Your task to perform on an android device: open app "Facebook Lite" (install if not already installed) Image 0: 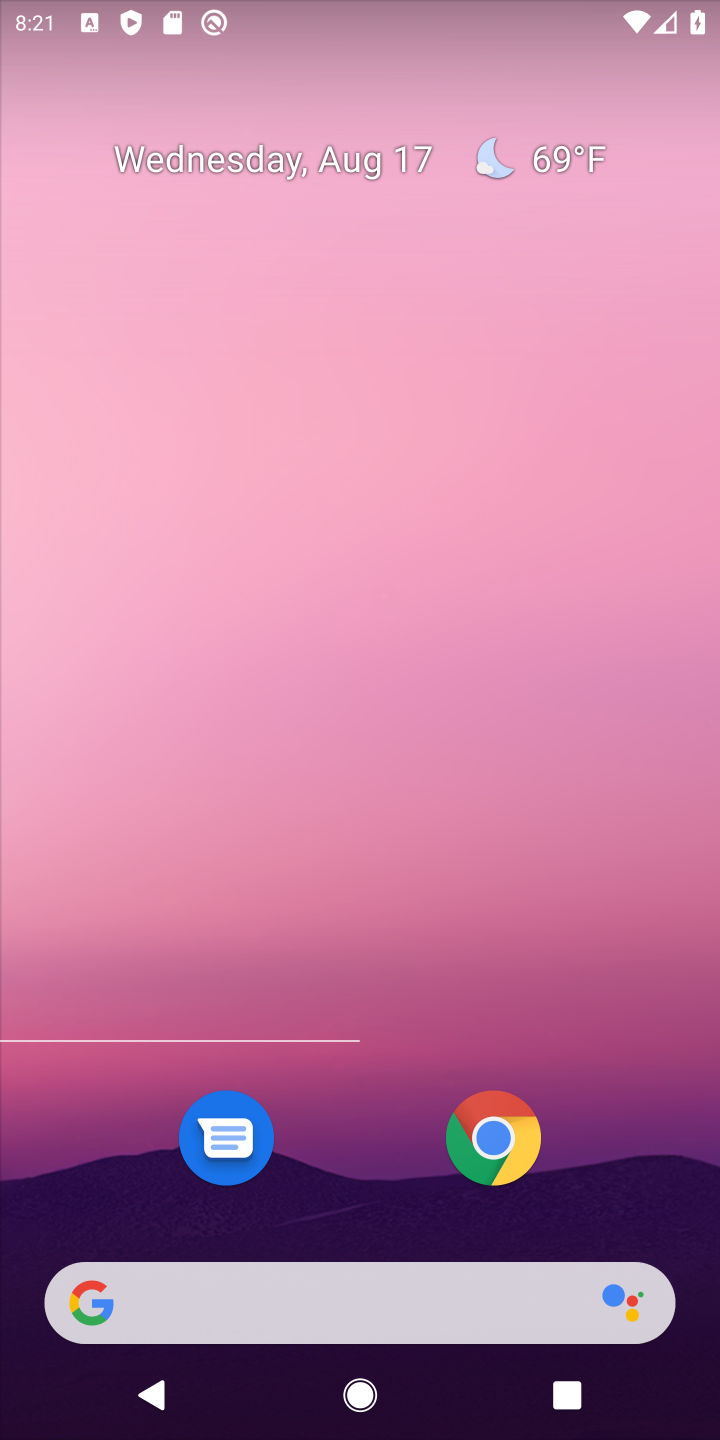
Step 0: press home button
Your task to perform on an android device: open app "Facebook Lite" (install if not already installed) Image 1: 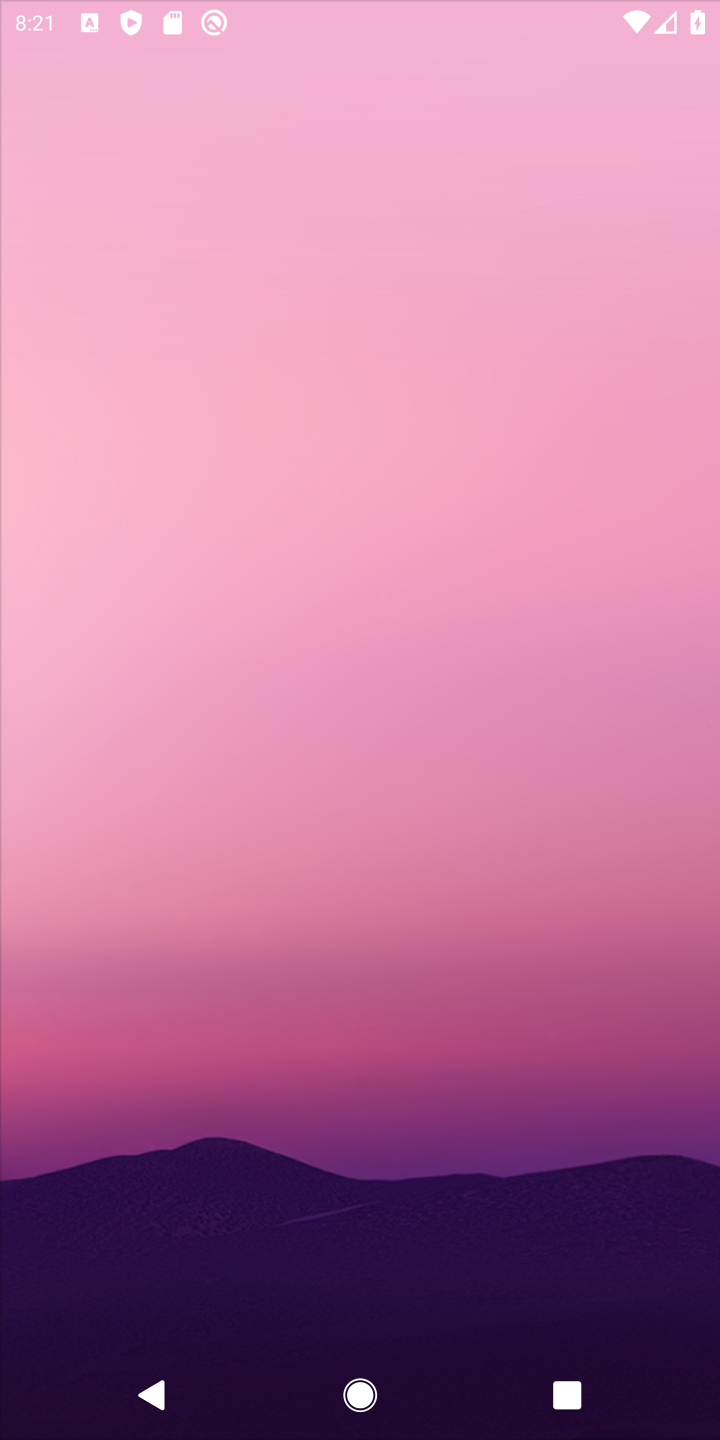
Step 1: drag from (385, 1207) to (381, 520)
Your task to perform on an android device: open app "Facebook Lite" (install if not already installed) Image 2: 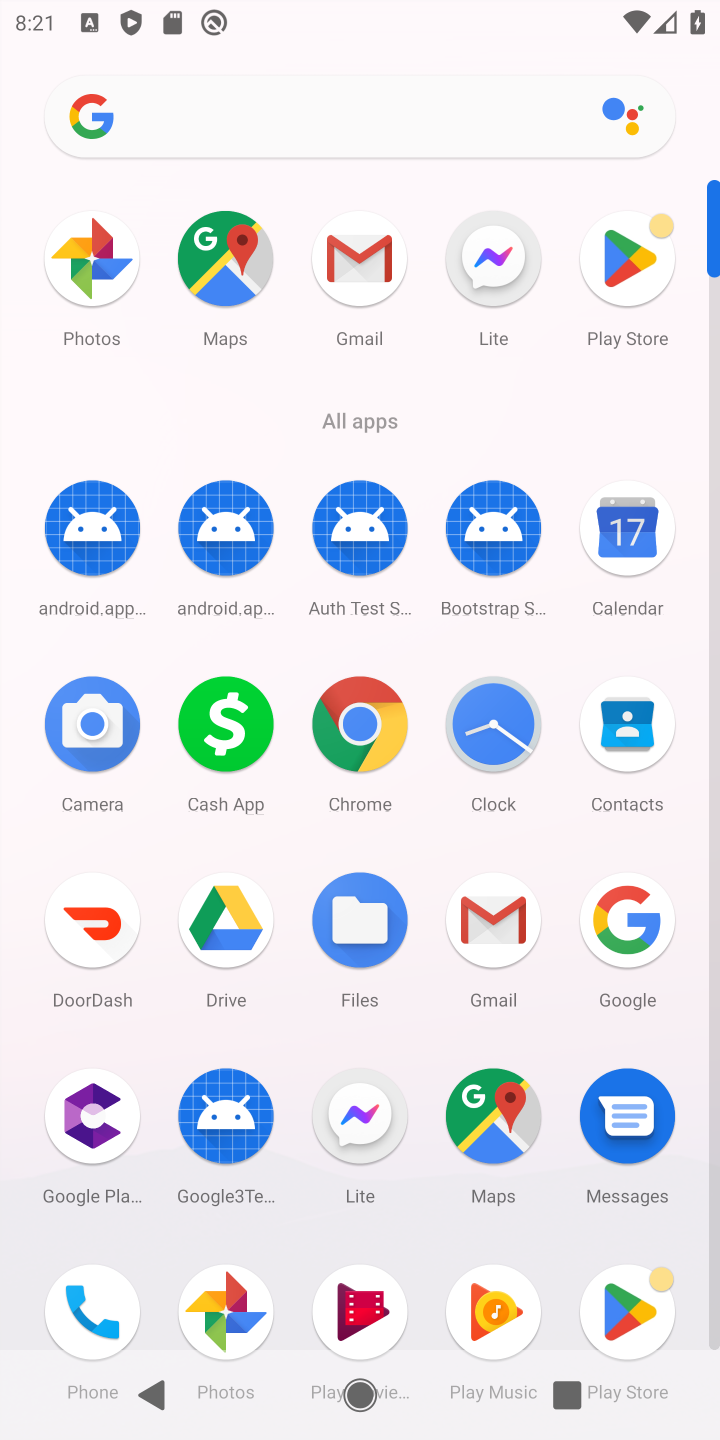
Step 2: click (620, 292)
Your task to perform on an android device: open app "Facebook Lite" (install if not already installed) Image 3: 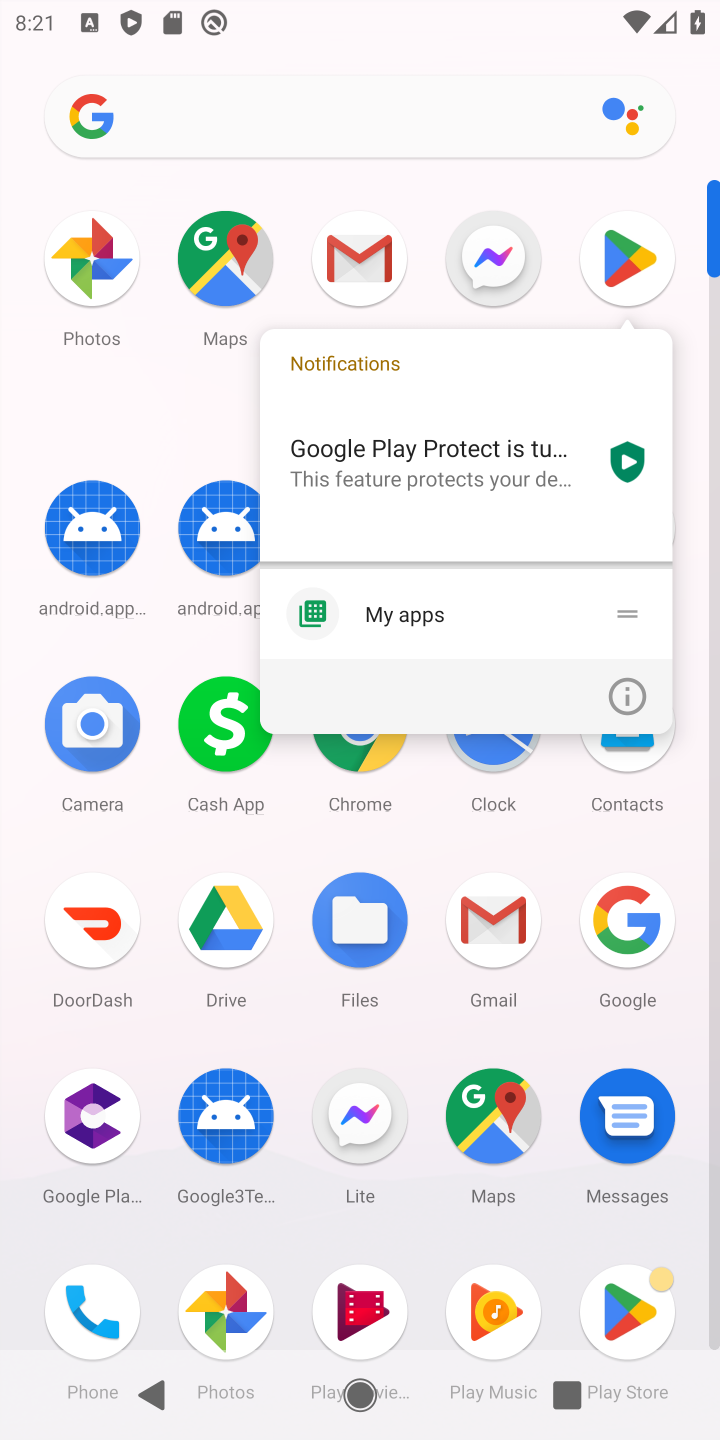
Step 3: click (603, 269)
Your task to perform on an android device: open app "Facebook Lite" (install if not already installed) Image 4: 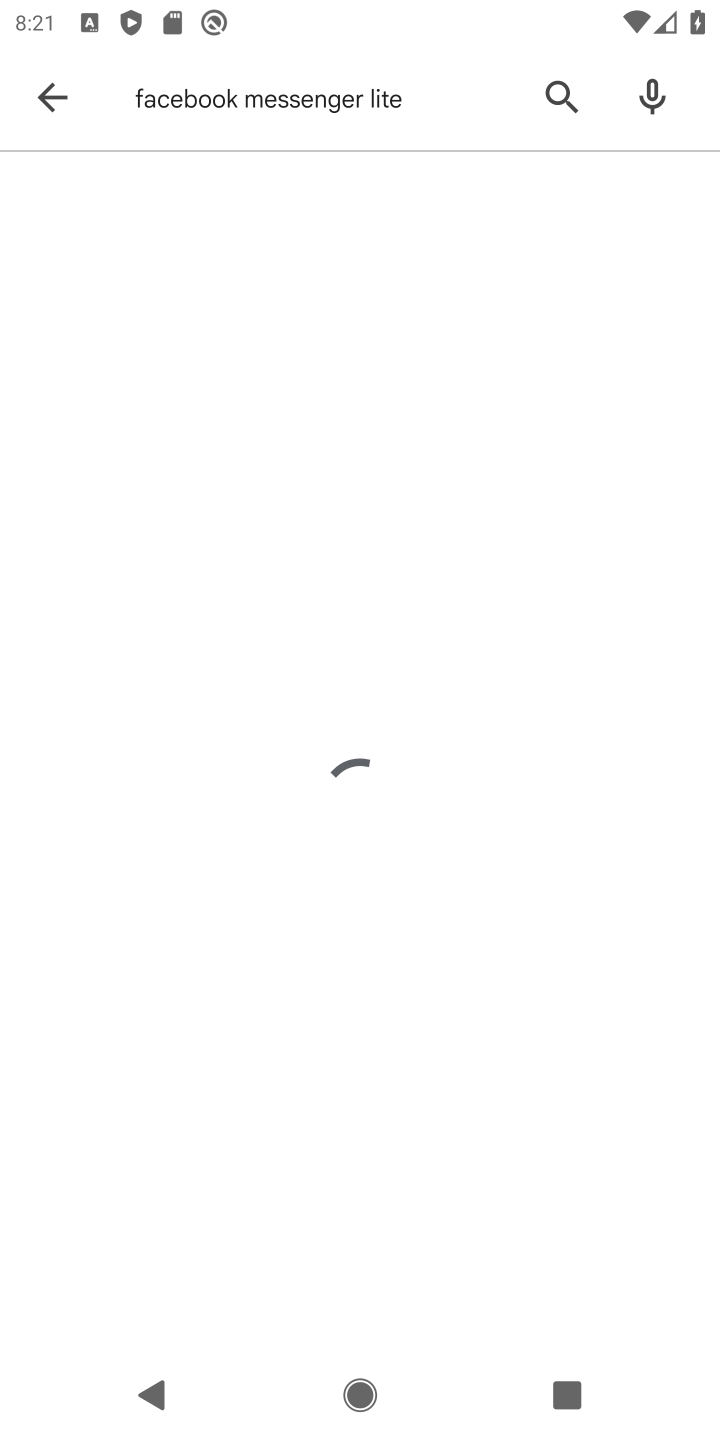
Step 4: click (51, 98)
Your task to perform on an android device: open app "Facebook Lite" (install if not already installed) Image 5: 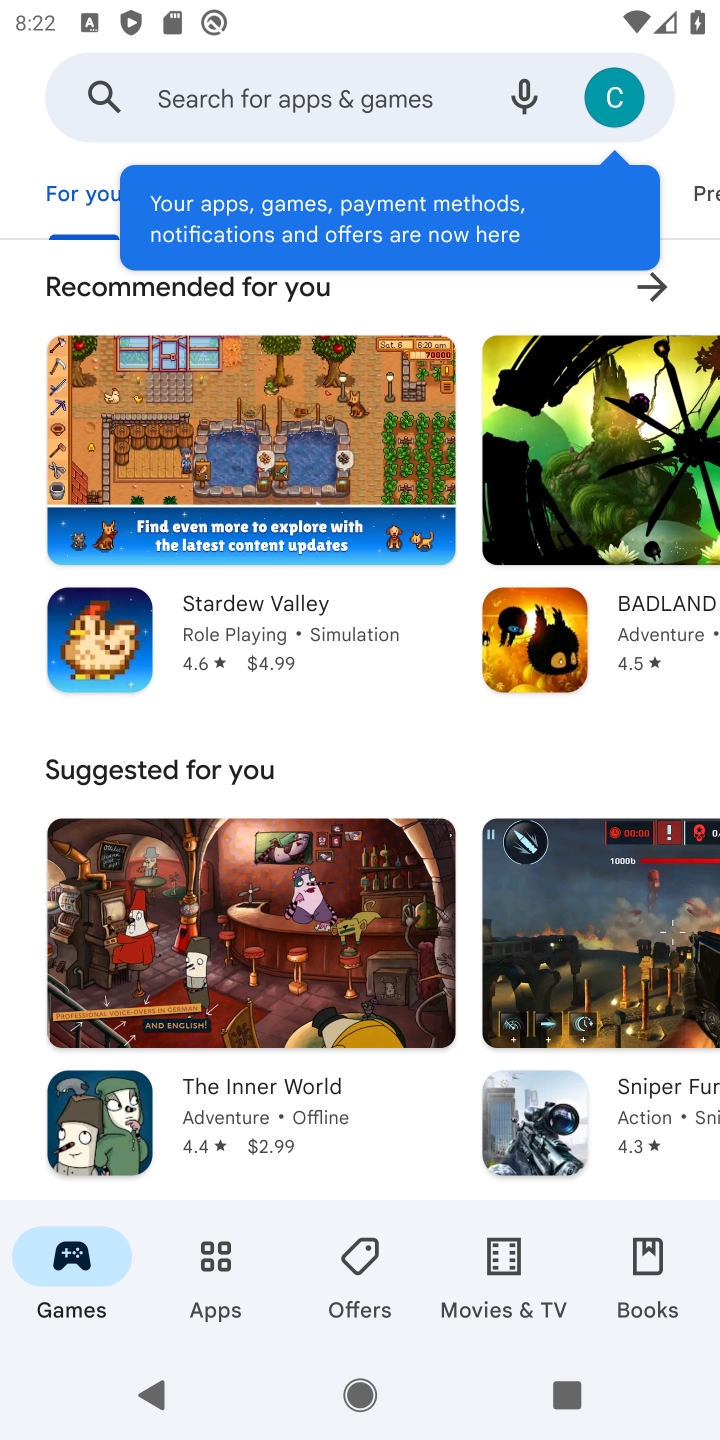
Step 5: click (270, 93)
Your task to perform on an android device: open app "Facebook Lite" (install if not already installed) Image 6: 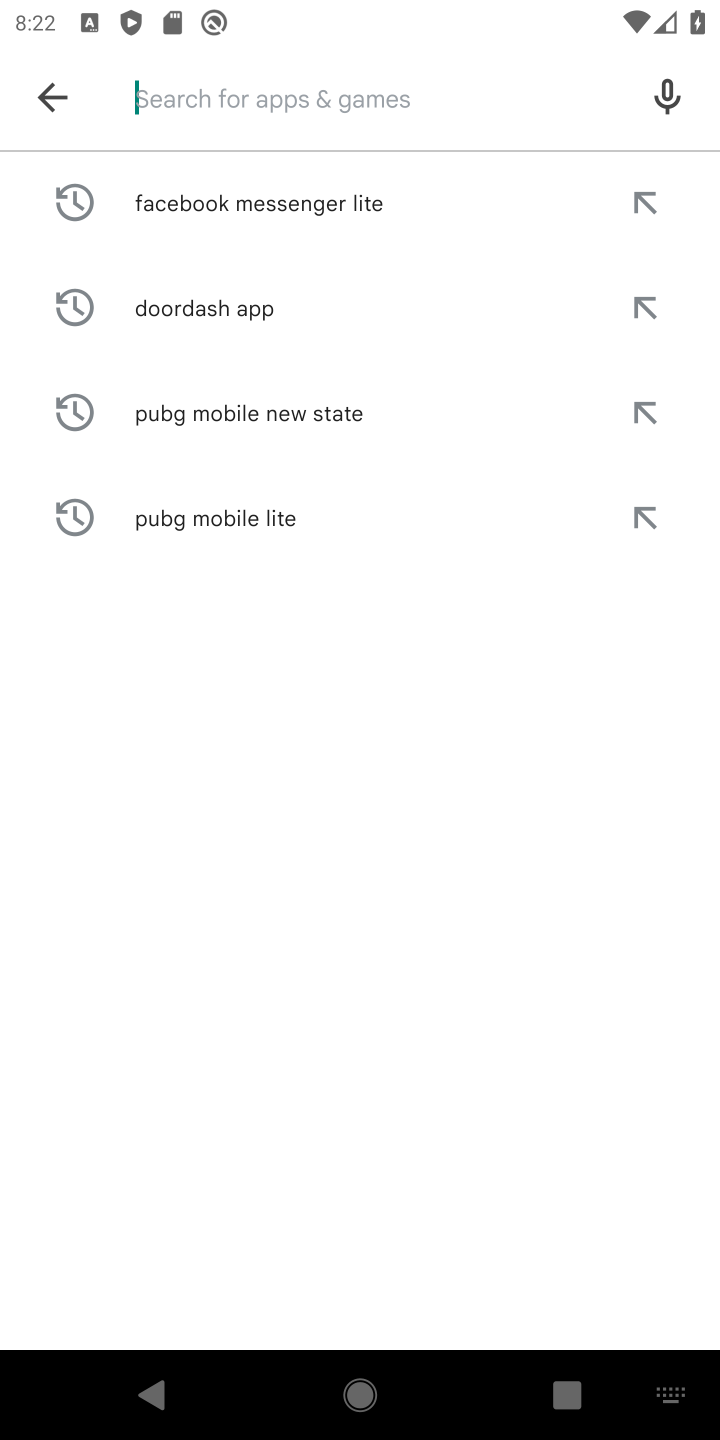
Step 6: type "Facebook Lite "
Your task to perform on an android device: open app "Facebook Lite" (install if not already installed) Image 7: 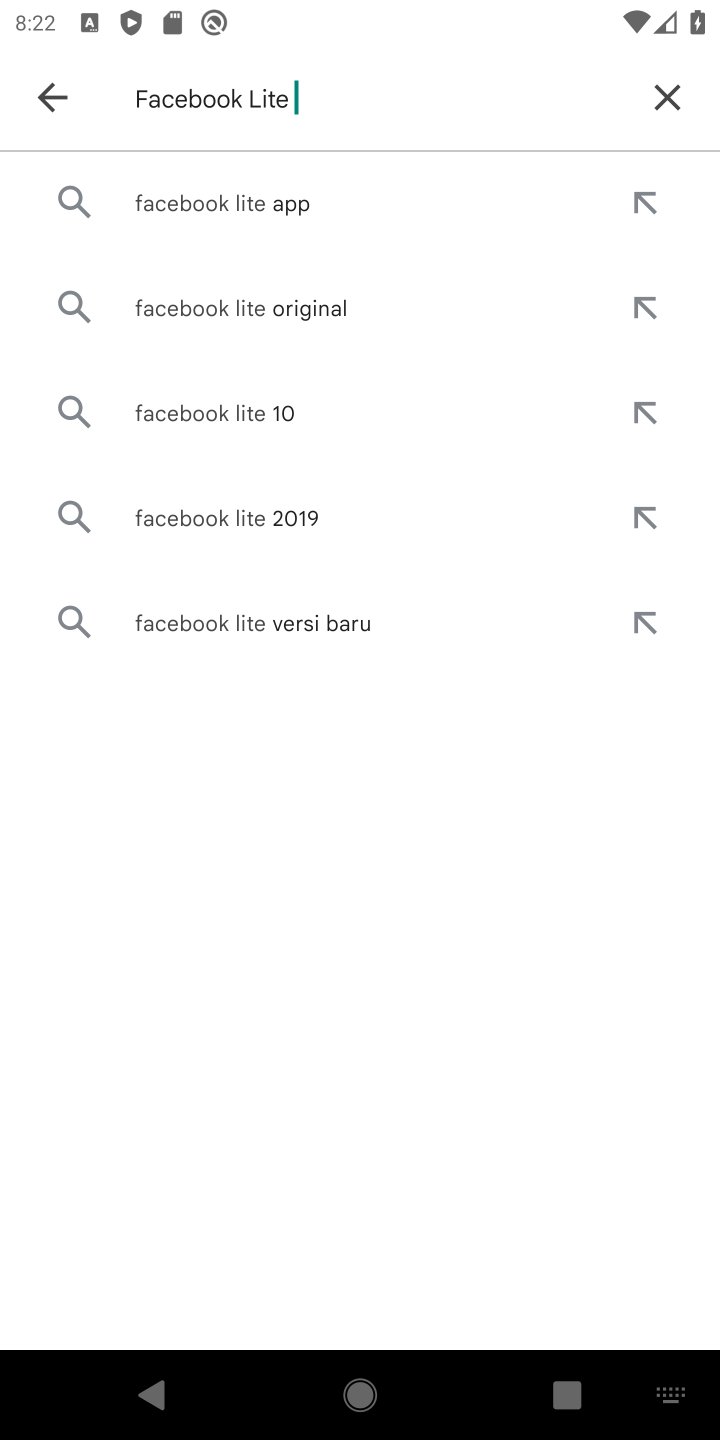
Step 7: click (302, 209)
Your task to perform on an android device: open app "Facebook Lite" (install if not already installed) Image 8: 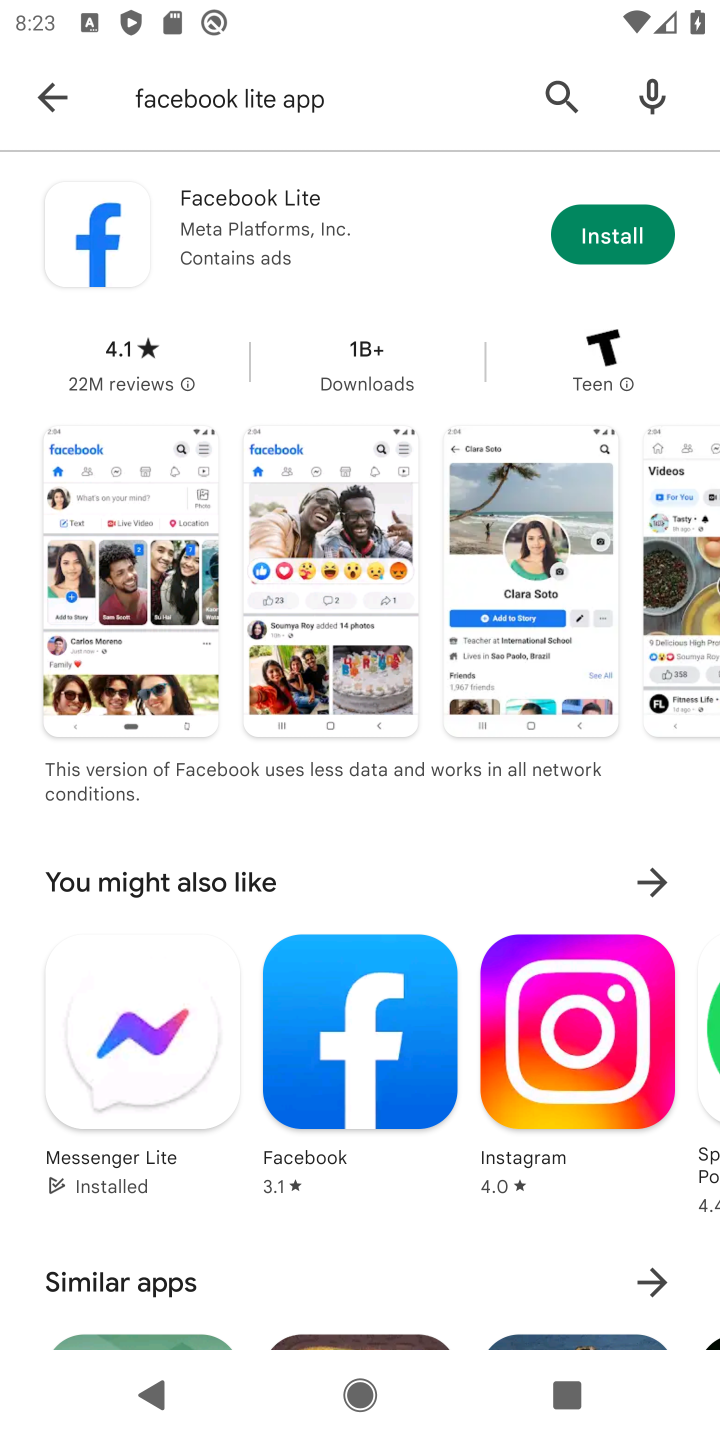
Step 8: click (618, 233)
Your task to perform on an android device: open app "Facebook Lite" (install if not already installed) Image 9: 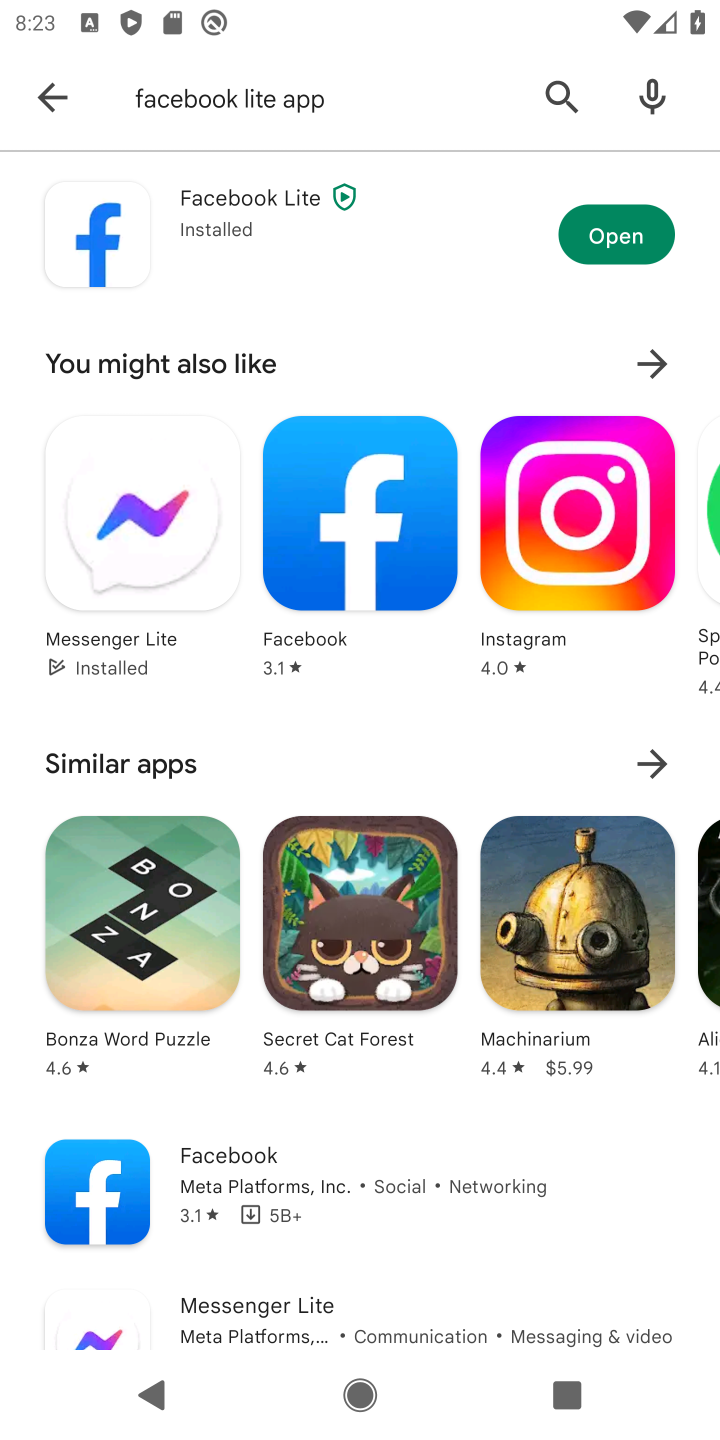
Step 9: click (598, 228)
Your task to perform on an android device: open app "Facebook Lite" (install if not already installed) Image 10: 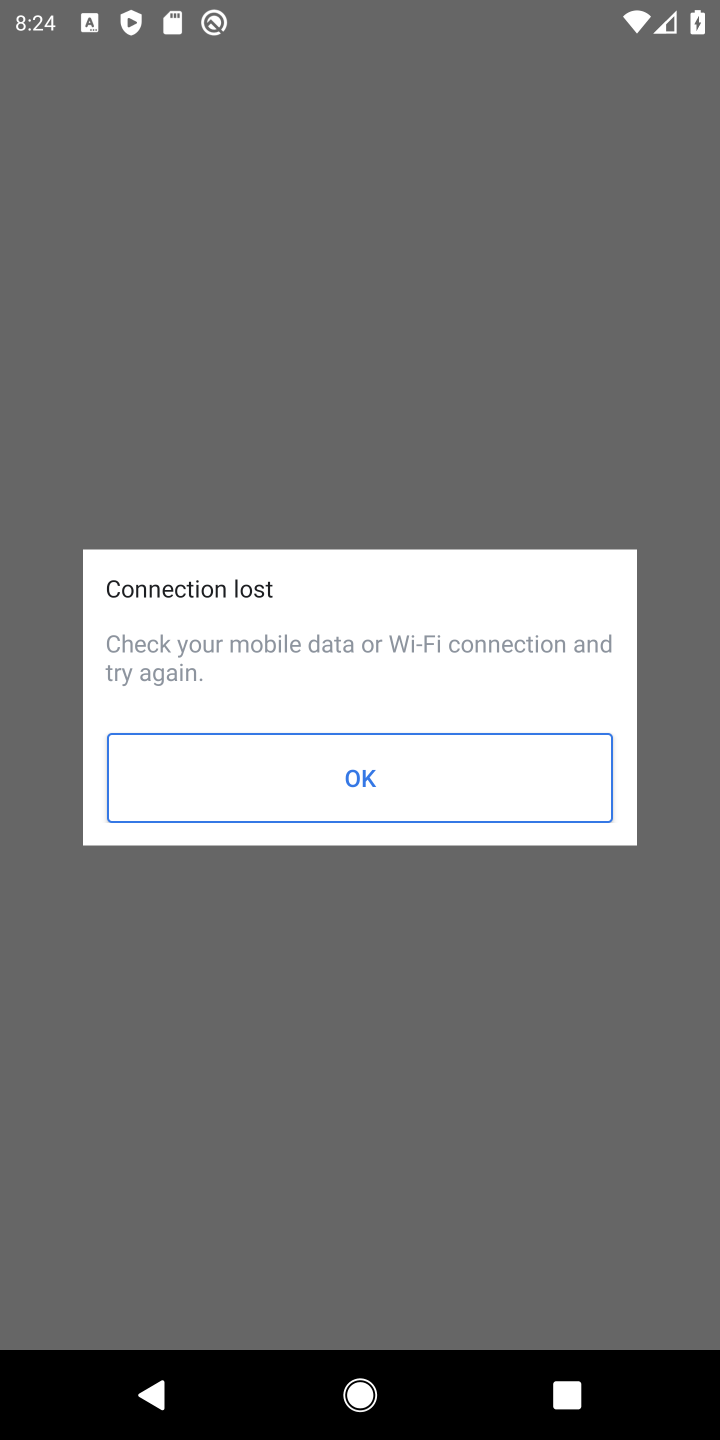
Step 10: task complete